Your task to perform on an android device: Find coffee shops on Maps Image 0: 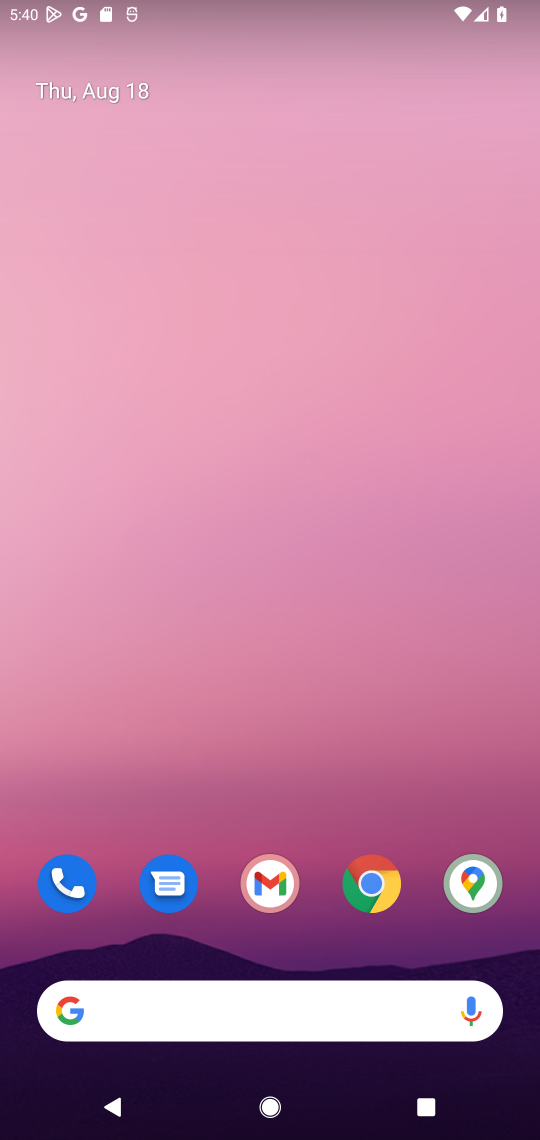
Step 0: drag from (410, 723) to (406, 49)
Your task to perform on an android device: Find coffee shops on Maps Image 1: 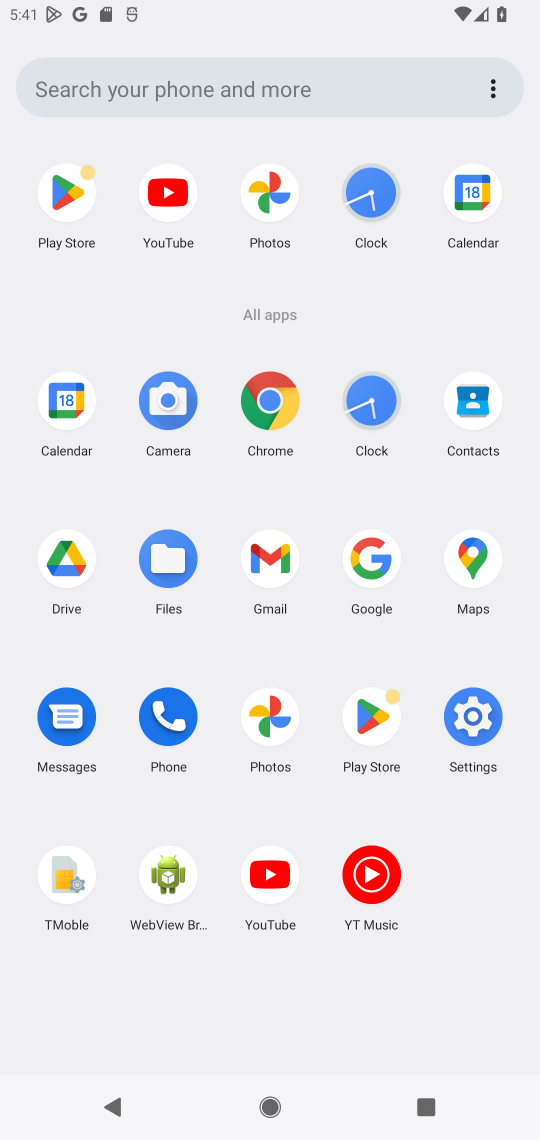
Step 1: click (471, 535)
Your task to perform on an android device: Find coffee shops on Maps Image 2: 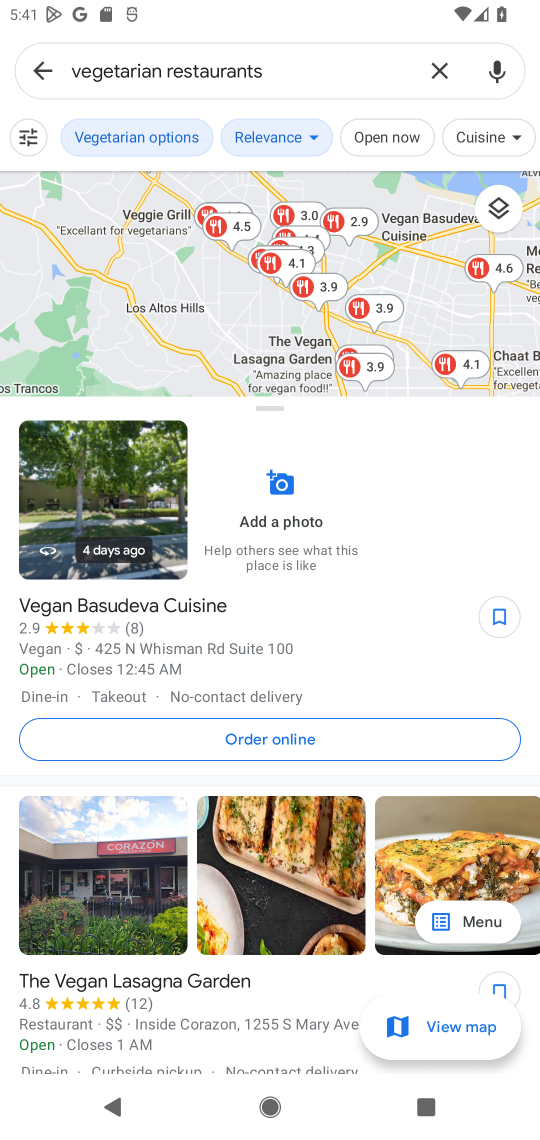
Step 2: click (41, 71)
Your task to perform on an android device: Find coffee shops on Maps Image 3: 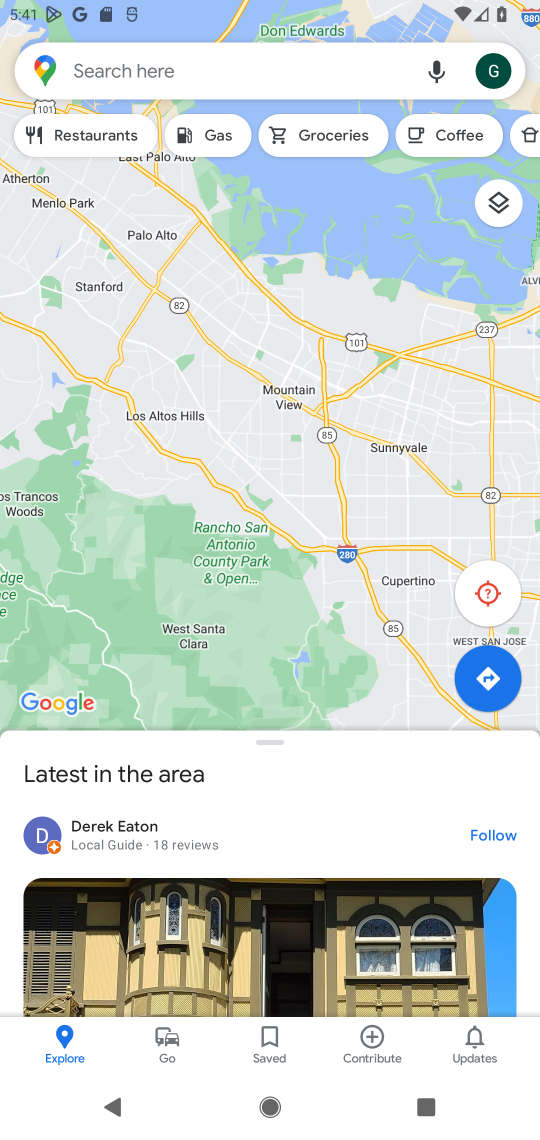
Step 3: click (134, 61)
Your task to perform on an android device: Find coffee shops on Maps Image 4: 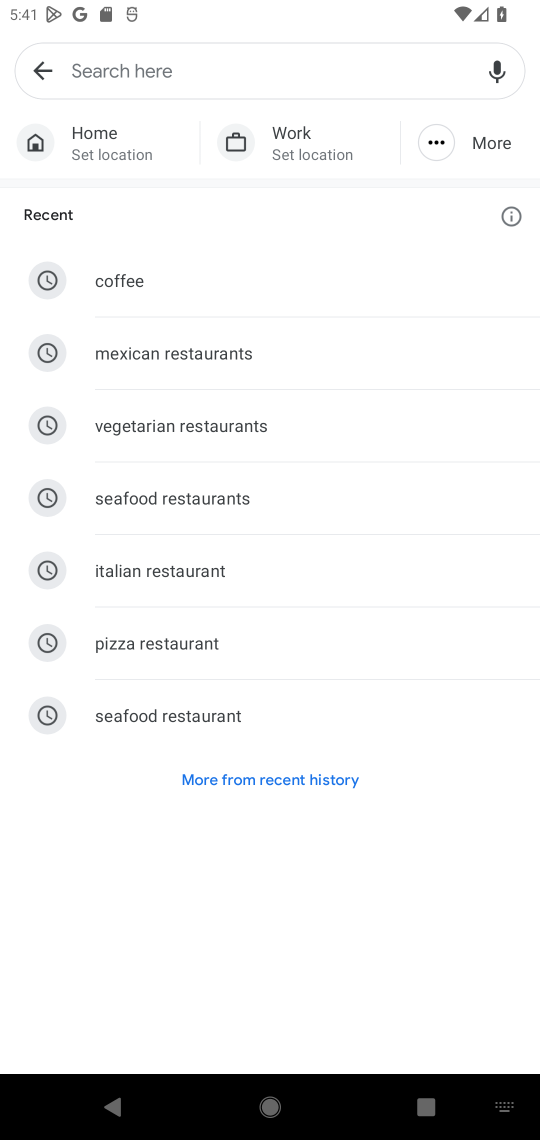
Step 4: type "coffee "
Your task to perform on an android device: Find coffee shops on Maps Image 5: 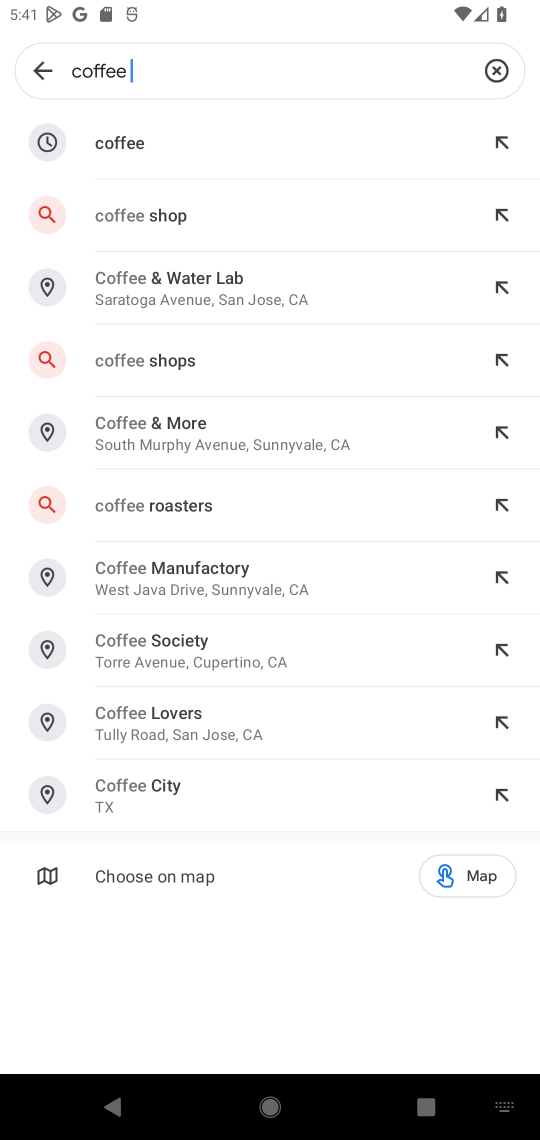
Step 5: click (141, 149)
Your task to perform on an android device: Find coffee shops on Maps Image 6: 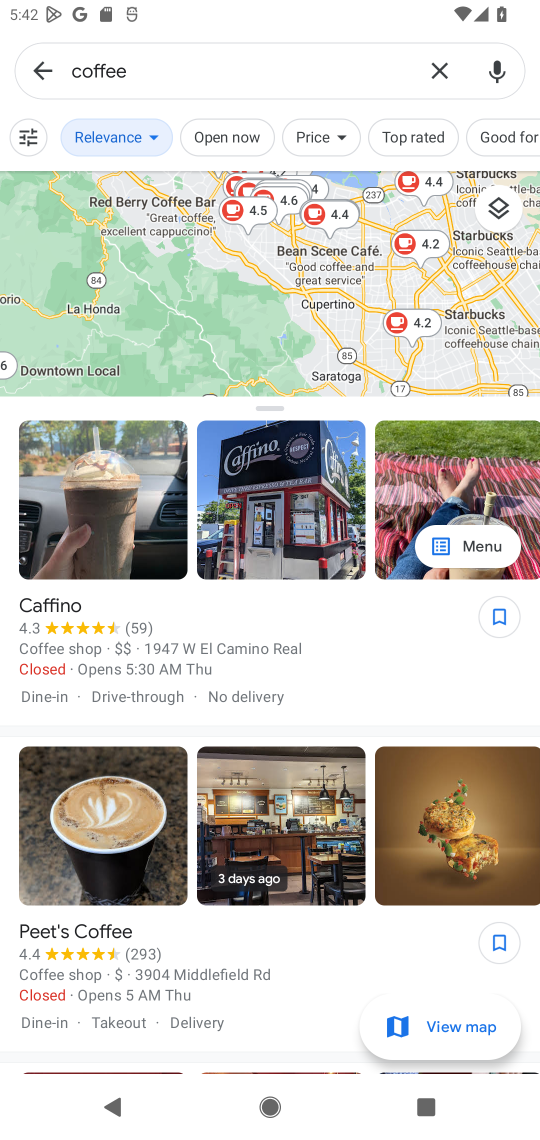
Step 6: task complete